Your task to perform on an android device: Open calendar and show me the second week of next month Image 0: 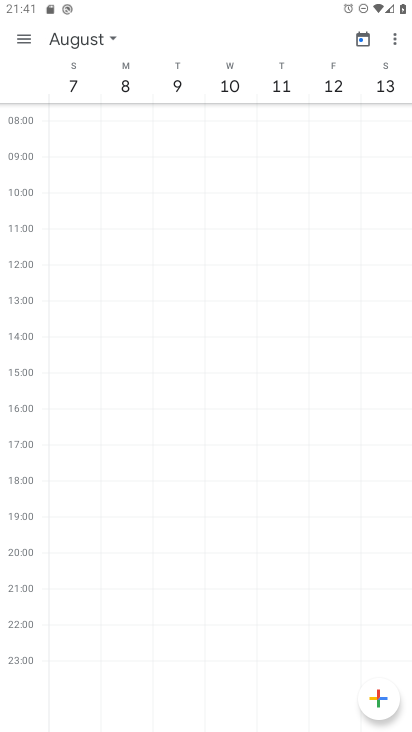
Step 0: press home button
Your task to perform on an android device: Open calendar and show me the second week of next month Image 1: 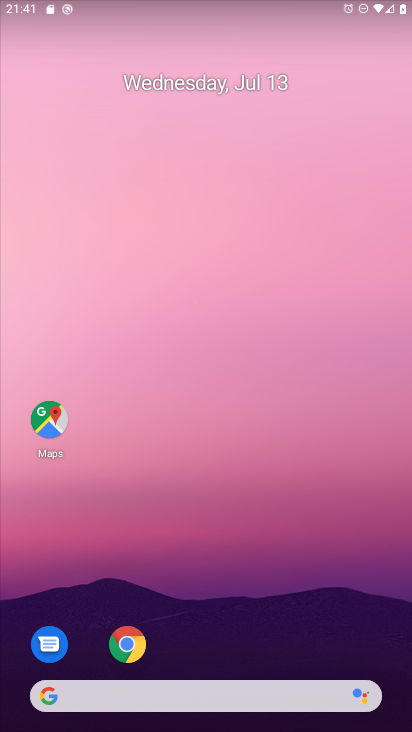
Step 1: drag from (271, 573) to (238, 130)
Your task to perform on an android device: Open calendar and show me the second week of next month Image 2: 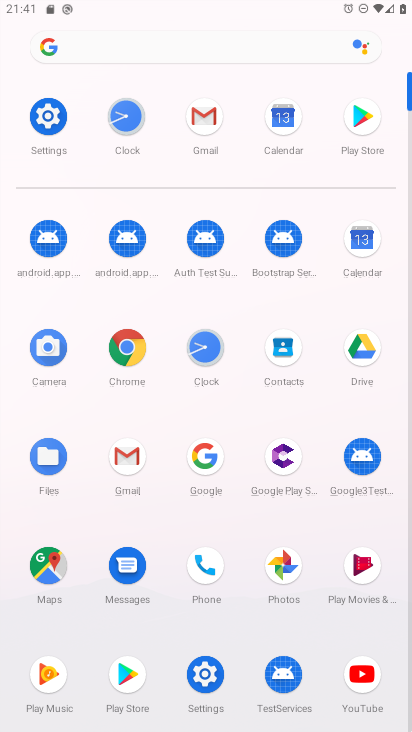
Step 2: click (362, 237)
Your task to perform on an android device: Open calendar and show me the second week of next month Image 3: 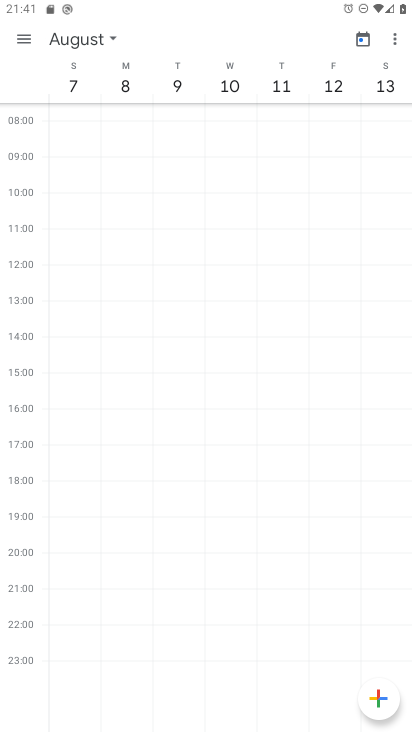
Step 3: task complete